Your task to perform on an android device: Open the Play Movies app and select the watchlist tab. Image 0: 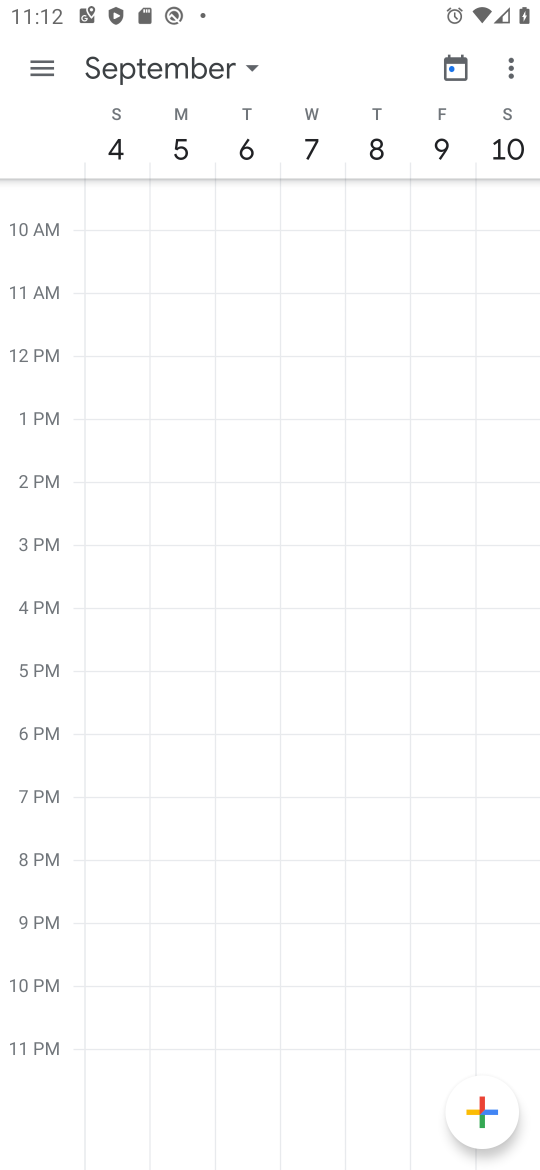
Step 0: press home button
Your task to perform on an android device: Open the Play Movies app and select the watchlist tab. Image 1: 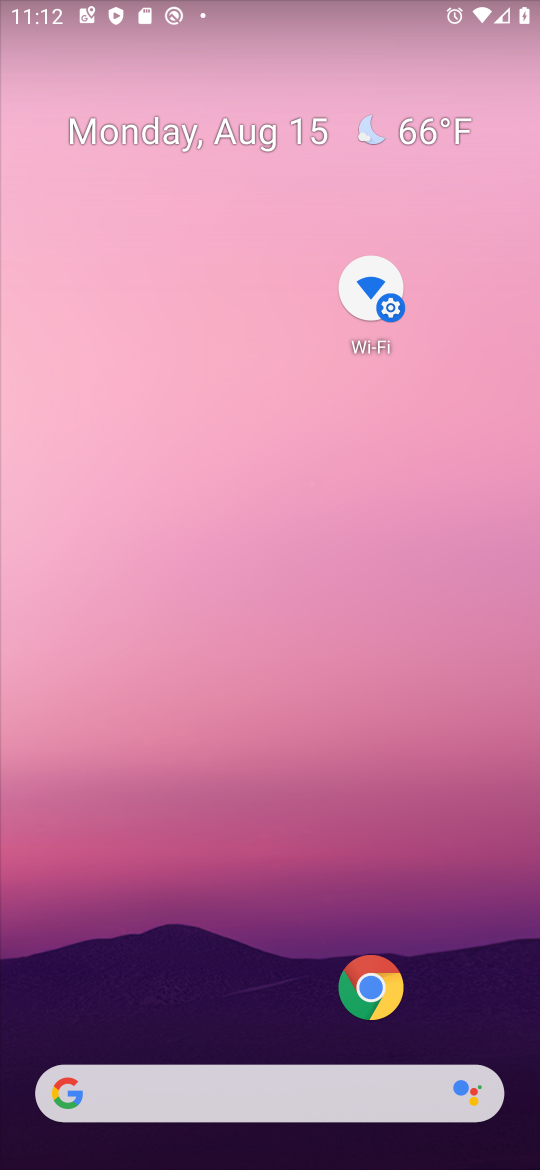
Step 1: drag from (267, 1061) to (188, 296)
Your task to perform on an android device: Open the Play Movies app and select the watchlist tab. Image 2: 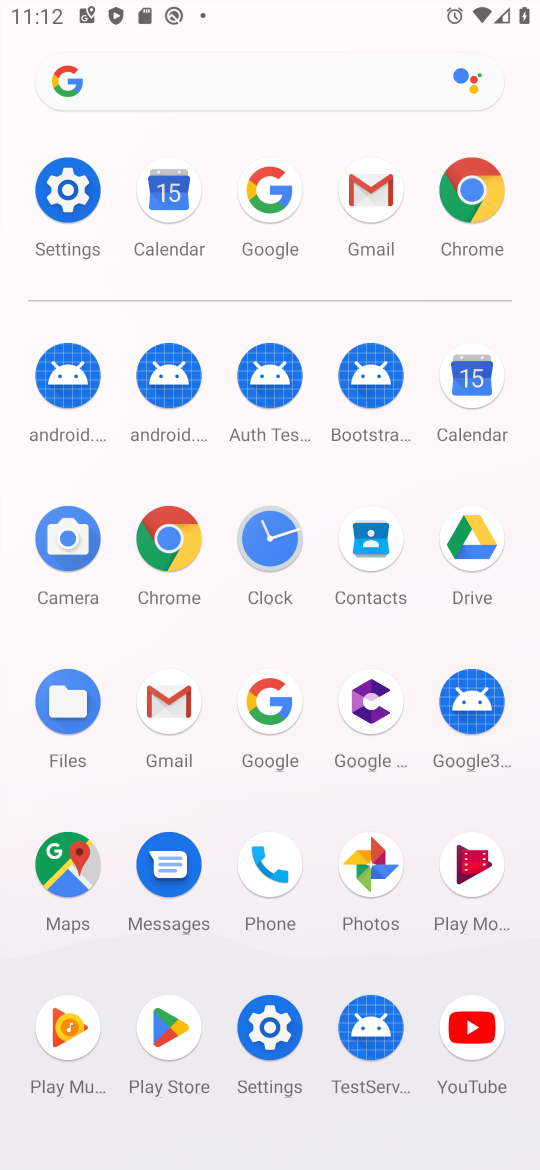
Step 2: click (474, 865)
Your task to perform on an android device: Open the Play Movies app and select the watchlist tab. Image 3: 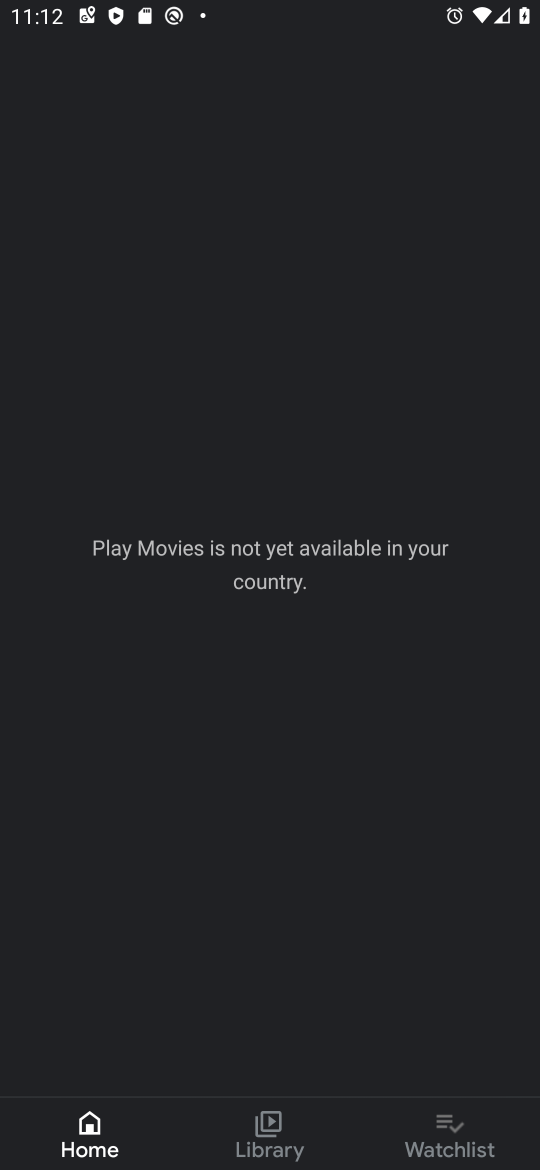
Step 3: click (448, 1139)
Your task to perform on an android device: Open the Play Movies app and select the watchlist tab. Image 4: 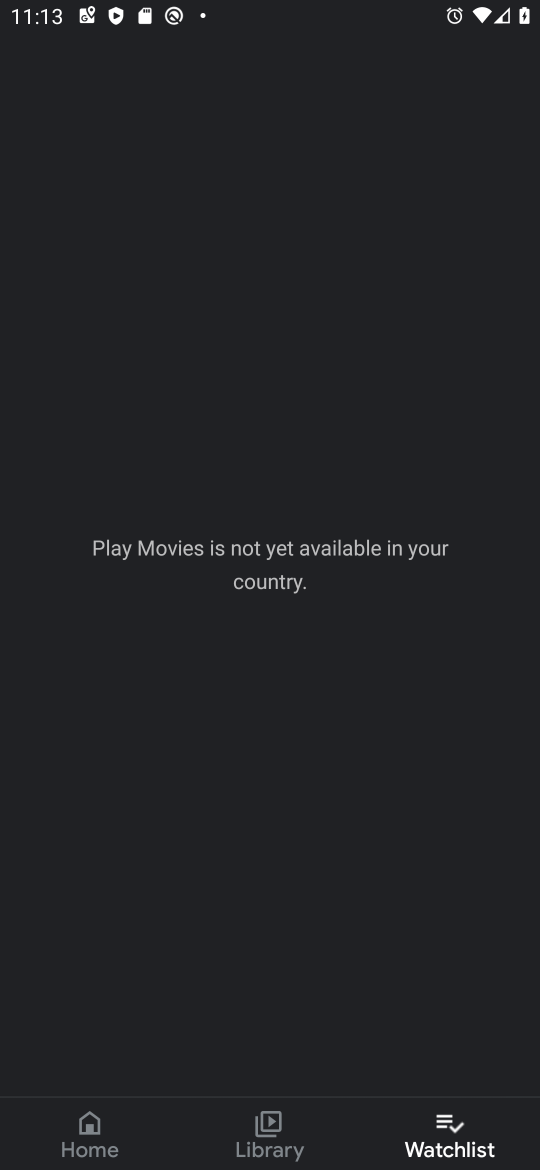
Step 4: task complete